Your task to perform on an android device: Open the calendar app, open the side menu, and click the "Day" option Image 0: 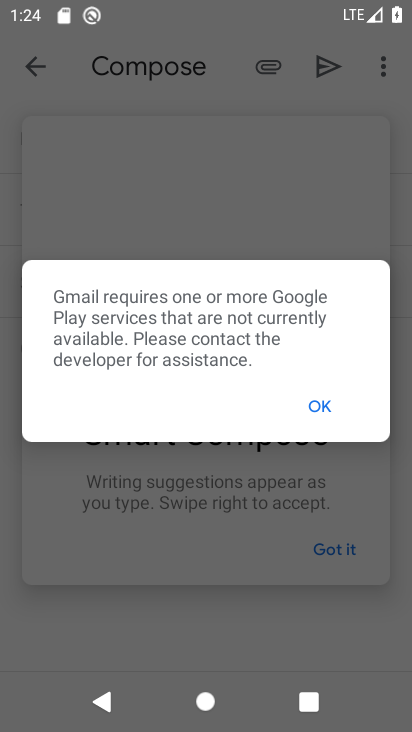
Step 0: press home button
Your task to perform on an android device: Open the calendar app, open the side menu, and click the "Day" option Image 1: 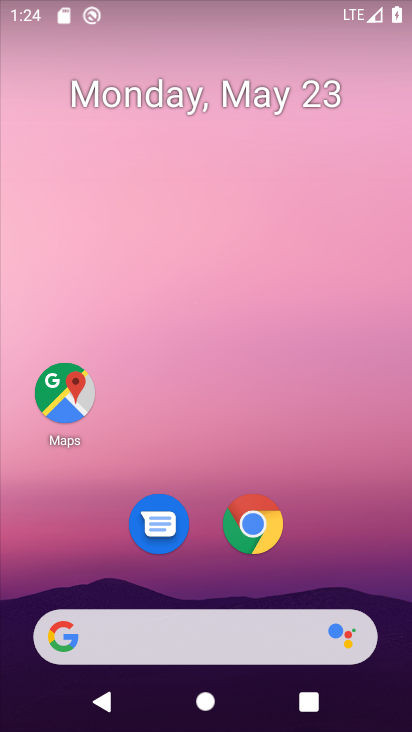
Step 1: drag from (274, 431) to (286, 61)
Your task to perform on an android device: Open the calendar app, open the side menu, and click the "Day" option Image 2: 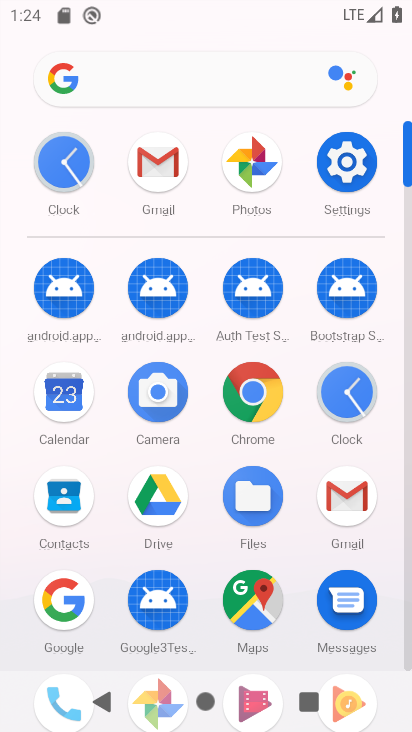
Step 2: click (73, 164)
Your task to perform on an android device: Open the calendar app, open the side menu, and click the "Day" option Image 3: 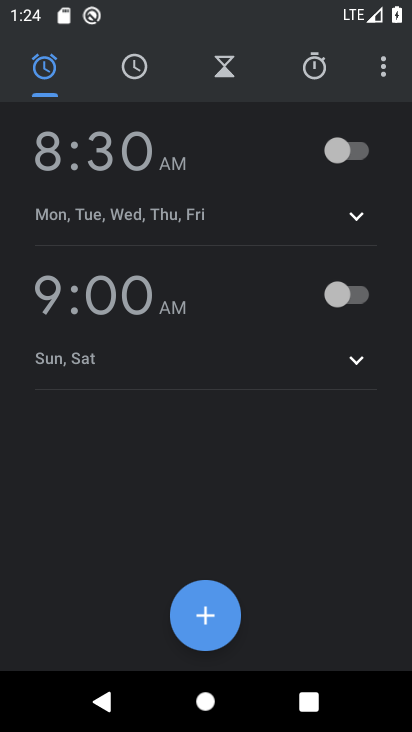
Step 3: press home button
Your task to perform on an android device: Open the calendar app, open the side menu, and click the "Day" option Image 4: 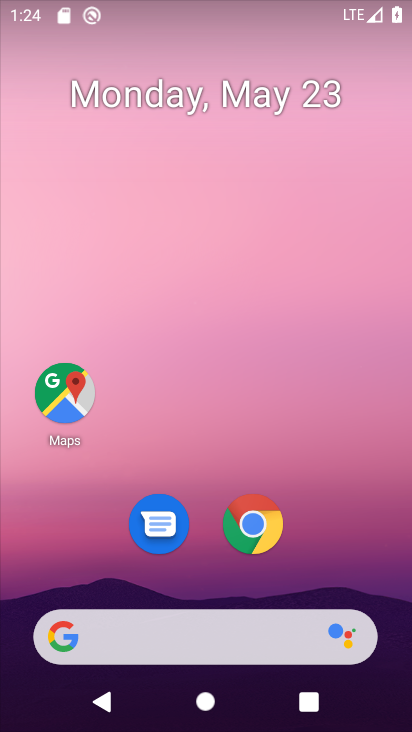
Step 4: drag from (186, 462) to (238, 20)
Your task to perform on an android device: Open the calendar app, open the side menu, and click the "Day" option Image 5: 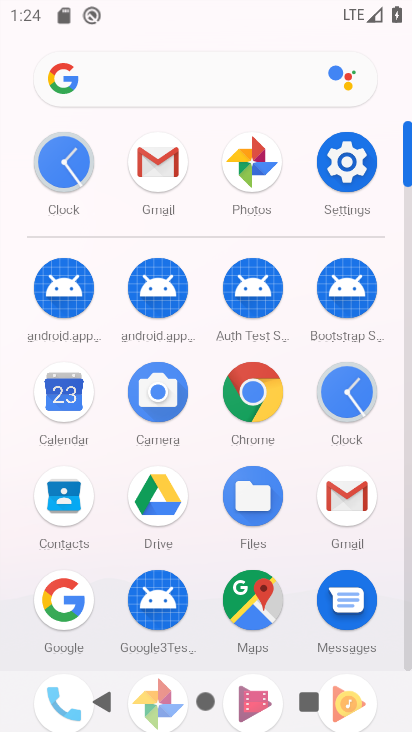
Step 5: click (74, 385)
Your task to perform on an android device: Open the calendar app, open the side menu, and click the "Day" option Image 6: 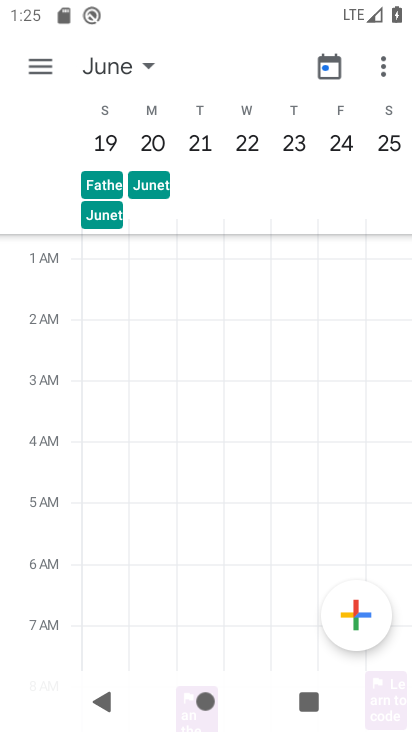
Step 6: click (46, 64)
Your task to perform on an android device: Open the calendar app, open the side menu, and click the "Day" option Image 7: 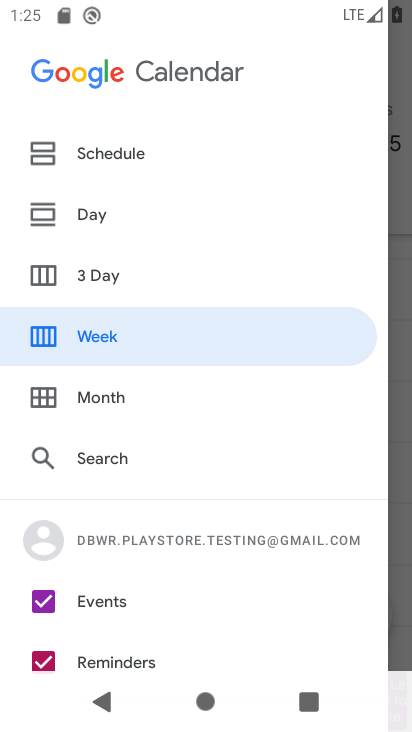
Step 7: click (54, 208)
Your task to perform on an android device: Open the calendar app, open the side menu, and click the "Day" option Image 8: 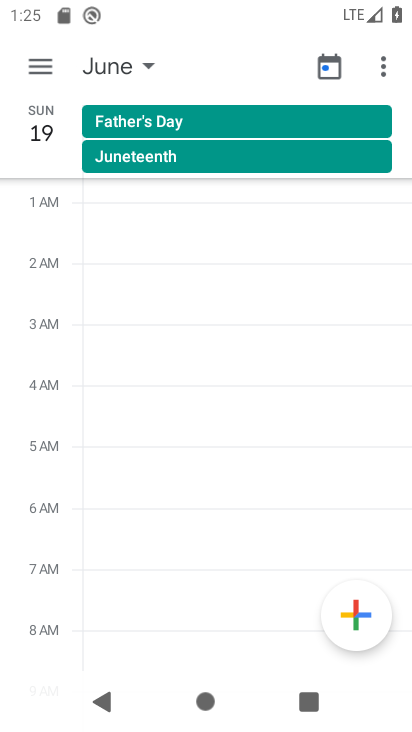
Step 8: task complete